Your task to perform on an android device: empty trash in google photos Image 0: 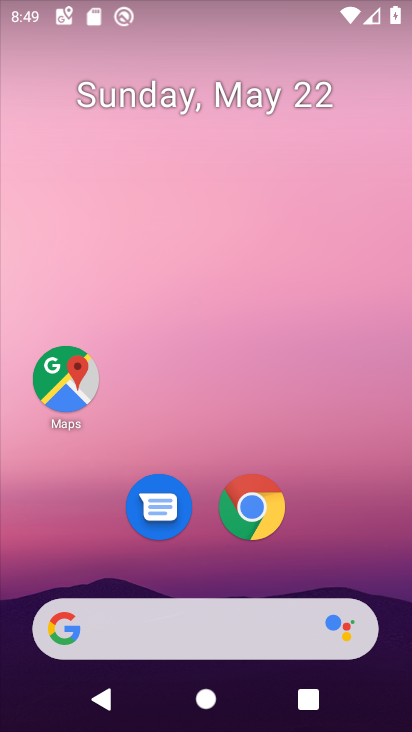
Step 0: drag from (207, 556) to (245, 54)
Your task to perform on an android device: empty trash in google photos Image 1: 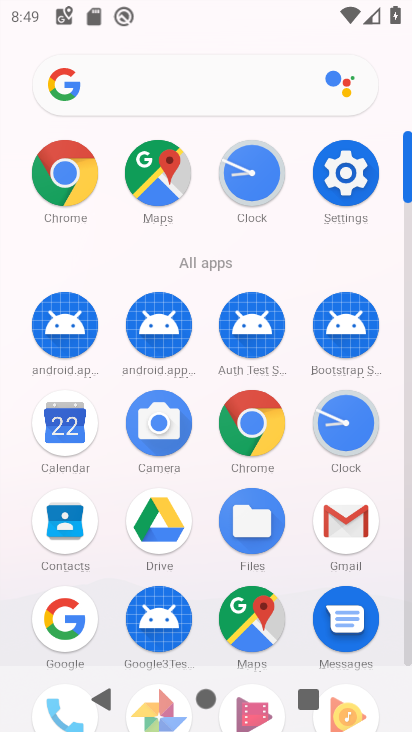
Step 1: drag from (206, 539) to (220, 200)
Your task to perform on an android device: empty trash in google photos Image 2: 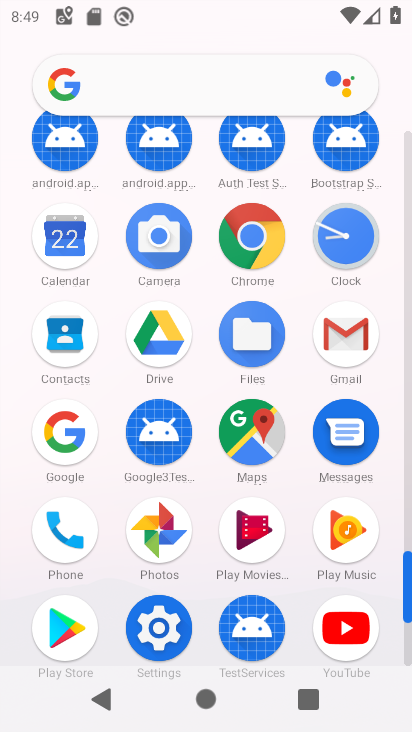
Step 2: click (164, 514)
Your task to perform on an android device: empty trash in google photos Image 3: 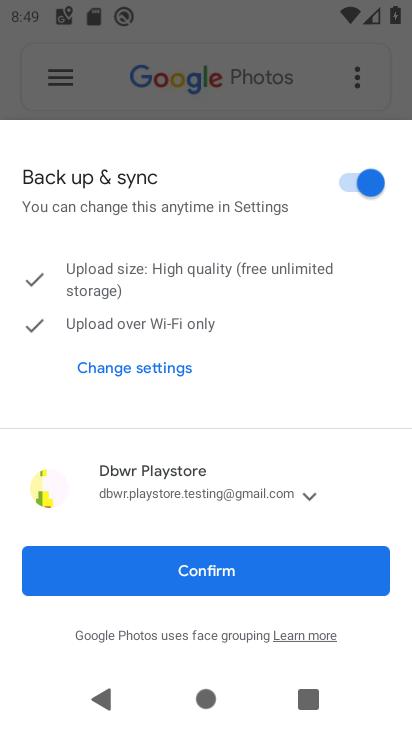
Step 3: click (340, 576)
Your task to perform on an android device: empty trash in google photos Image 4: 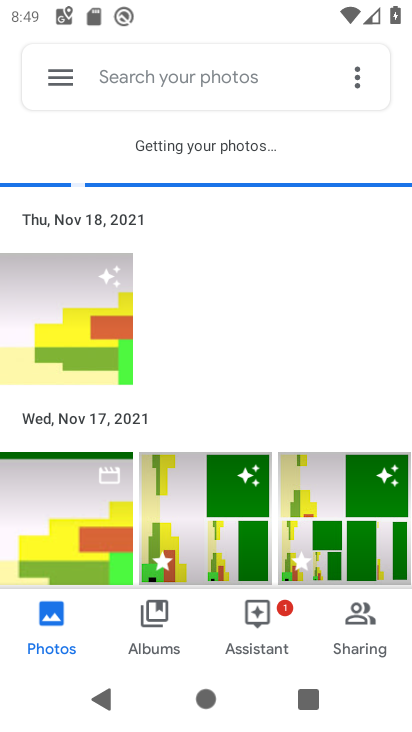
Step 4: click (53, 94)
Your task to perform on an android device: empty trash in google photos Image 5: 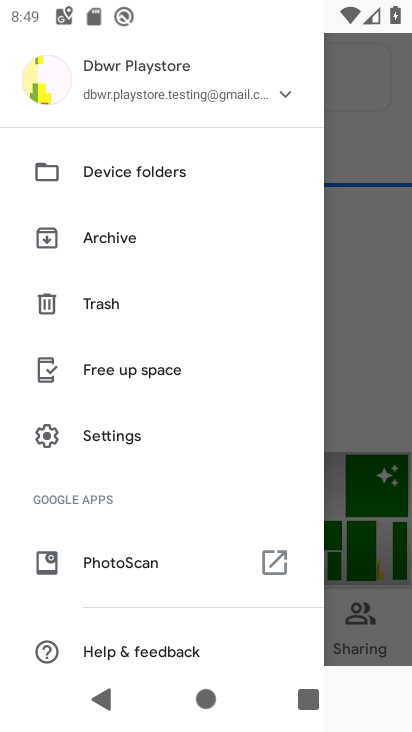
Step 5: click (163, 311)
Your task to perform on an android device: empty trash in google photos Image 6: 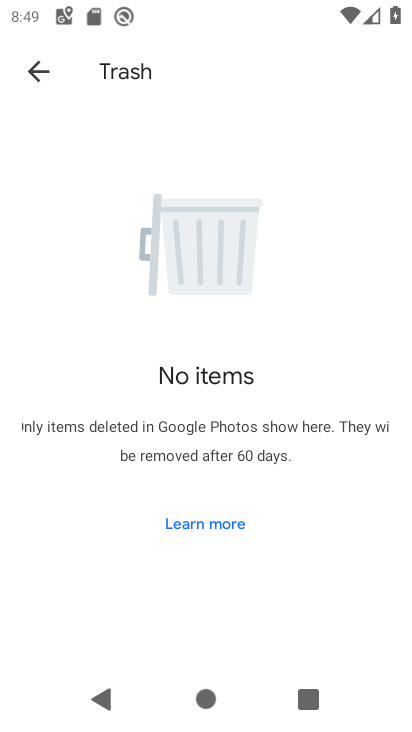
Step 6: task complete